Your task to perform on an android device: Open calendar and show me the fourth week of next month Image 0: 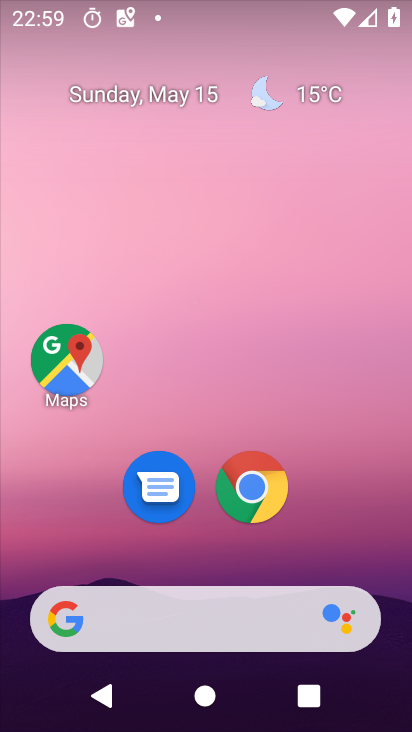
Step 0: drag from (398, 653) to (410, 126)
Your task to perform on an android device: Open calendar and show me the fourth week of next month Image 1: 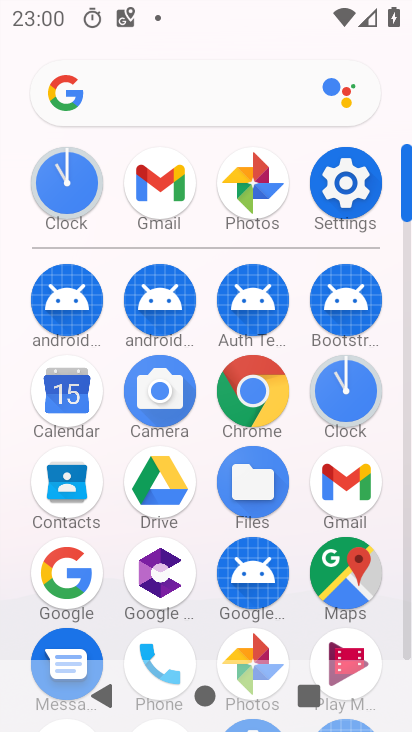
Step 1: click (70, 403)
Your task to perform on an android device: Open calendar and show me the fourth week of next month Image 2: 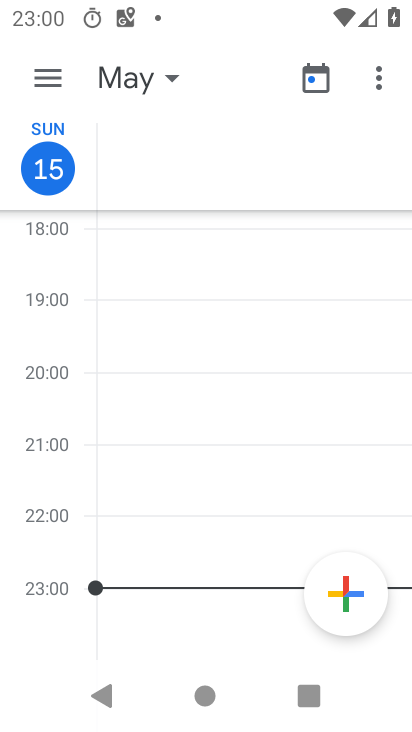
Step 2: click (173, 79)
Your task to perform on an android device: Open calendar and show me the fourth week of next month Image 3: 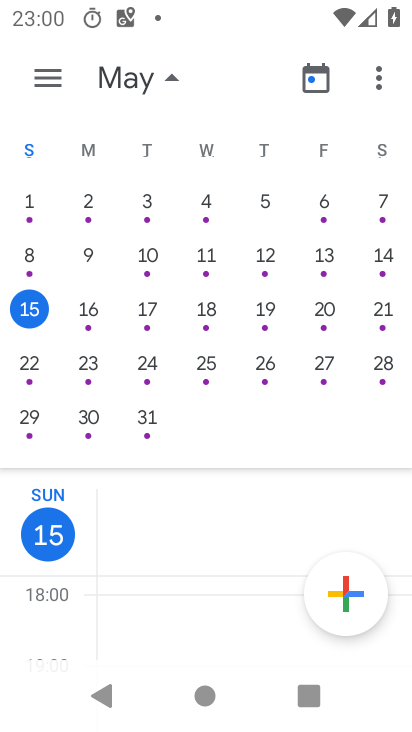
Step 3: drag from (399, 277) to (30, 229)
Your task to perform on an android device: Open calendar and show me the fourth week of next month Image 4: 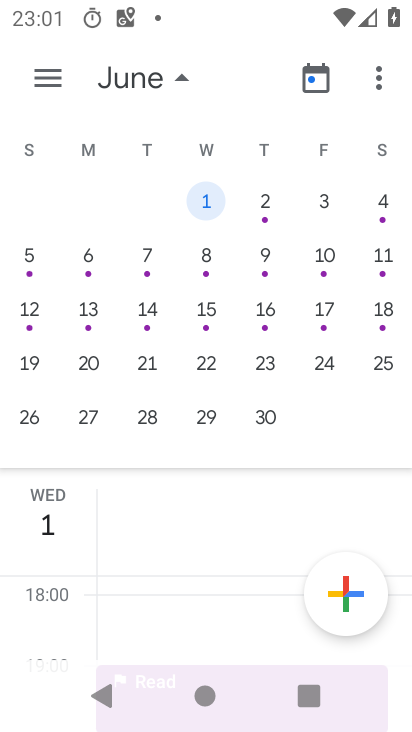
Step 4: click (261, 356)
Your task to perform on an android device: Open calendar and show me the fourth week of next month Image 5: 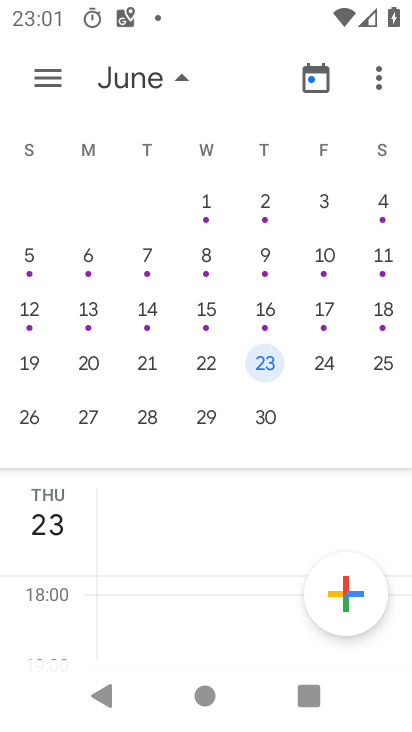
Step 5: task complete